Your task to perform on an android device: Go to battery settings Image 0: 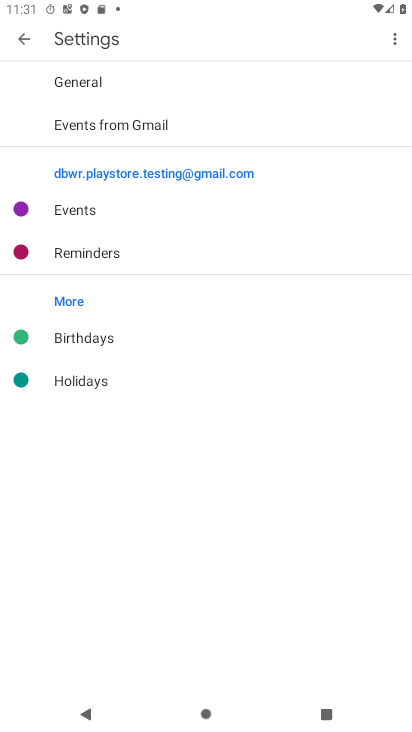
Step 0: press home button
Your task to perform on an android device: Go to battery settings Image 1: 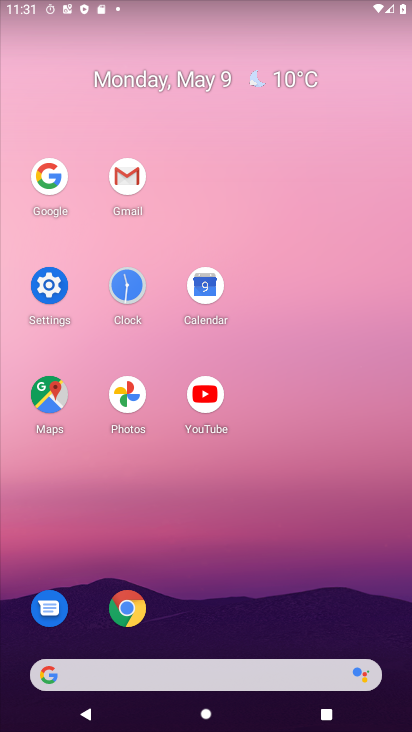
Step 1: click (46, 287)
Your task to perform on an android device: Go to battery settings Image 2: 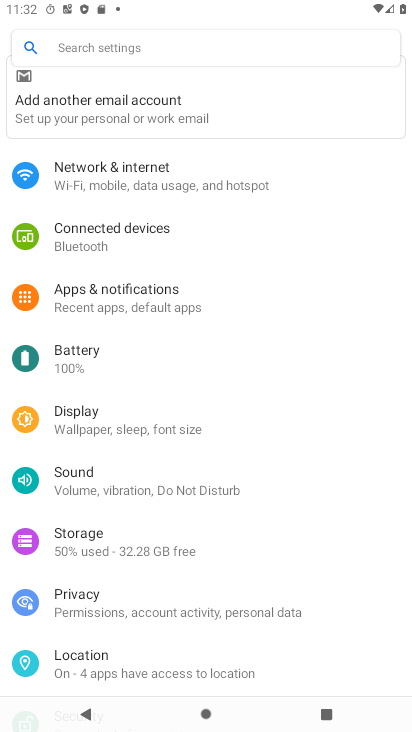
Step 2: click (106, 360)
Your task to perform on an android device: Go to battery settings Image 3: 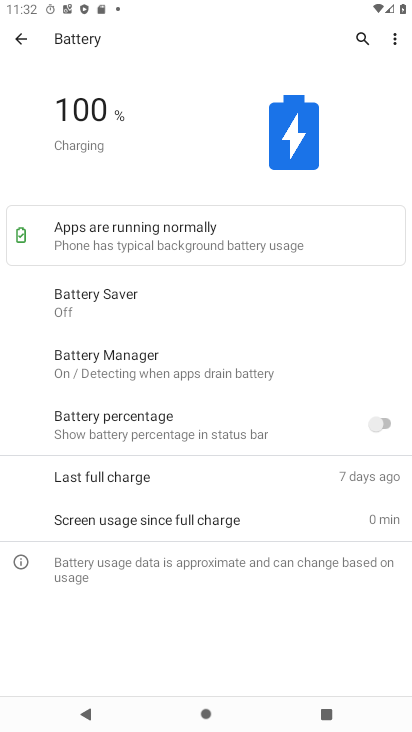
Step 3: task complete